Your task to perform on an android device: Open privacy settings Image 0: 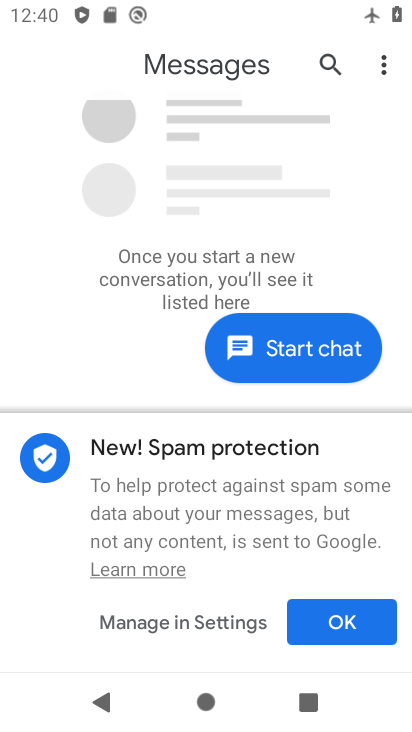
Step 0: press home button
Your task to perform on an android device: Open privacy settings Image 1: 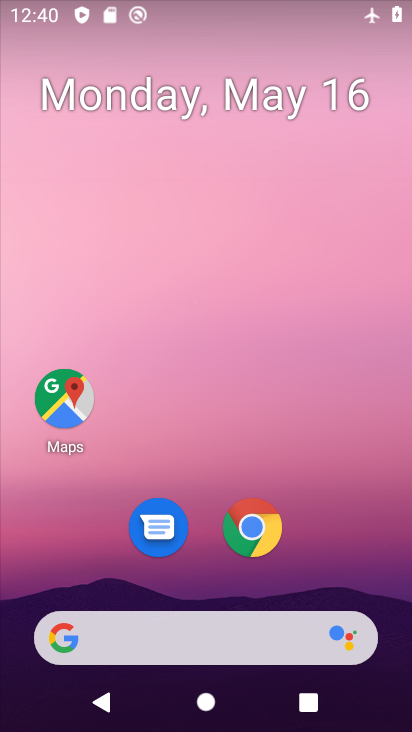
Step 1: drag from (203, 589) to (288, 190)
Your task to perform on an android device: Open privacy settings Image 2: 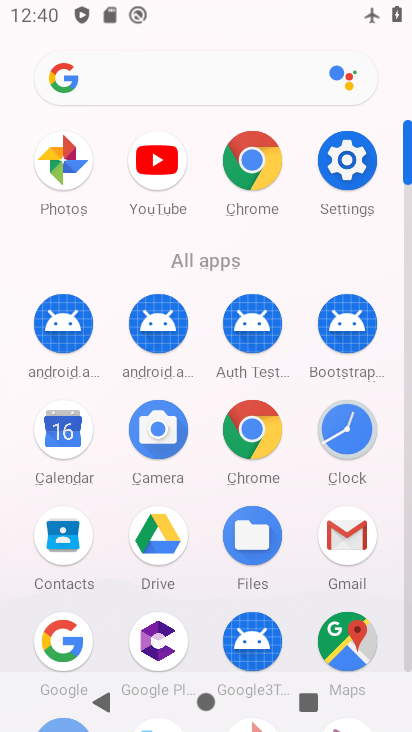
Step 2: click (348, 148)
Your task to perform on an android device: Open privacy settings Image 3: 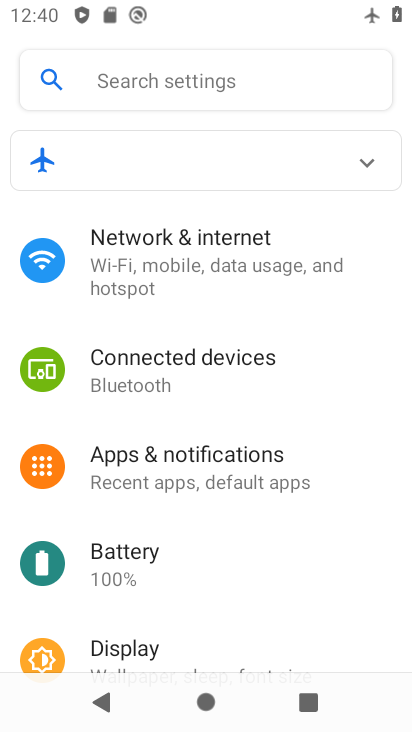
Step 3: drag from (222, 555) to (300, 201)
Your task to perform on an android device: Open privacy settings Image 4: 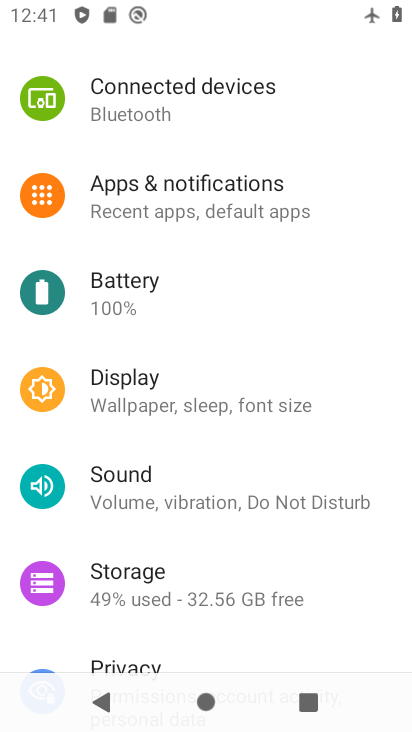
Step 4: drag from (165, 638) to (239, 267)
Your task to perform on an android device: Open privacy settings Image 5: 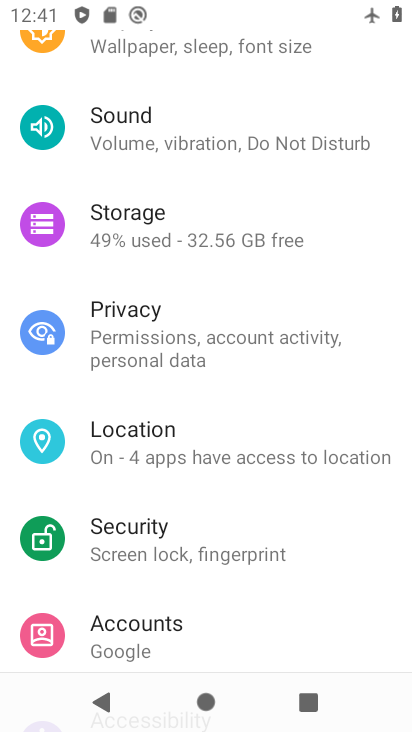
Step 5: click (145, 345)
Your task to perform on an android device: Open privacy settings Image 6: 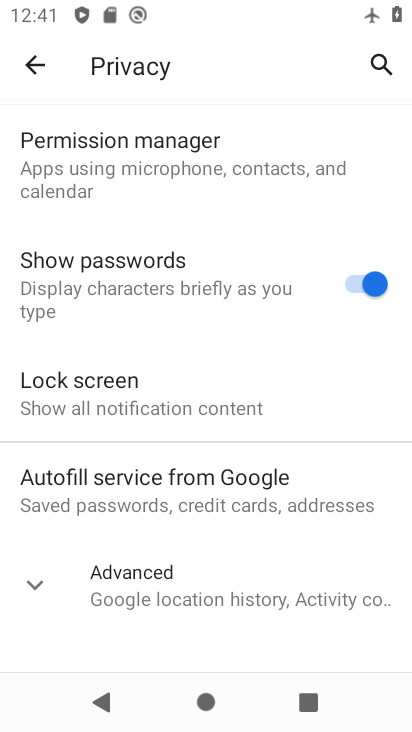
Step 6: task complete